Your task to perform on an android device: Open Android settings Image 0: 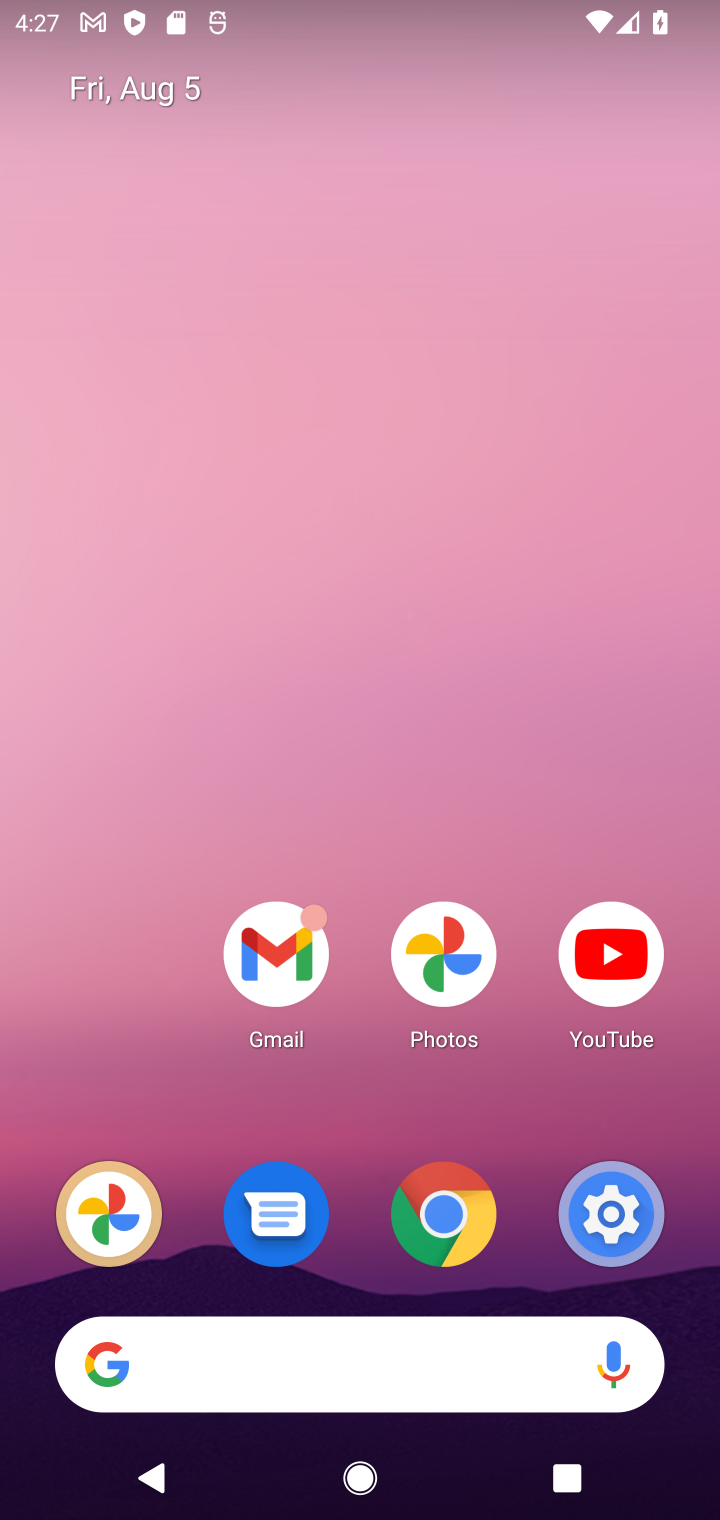
Step 0: drag from (176, 597) to (255, 0)
Your task to perform on an android device: Open Android settings Image 1: 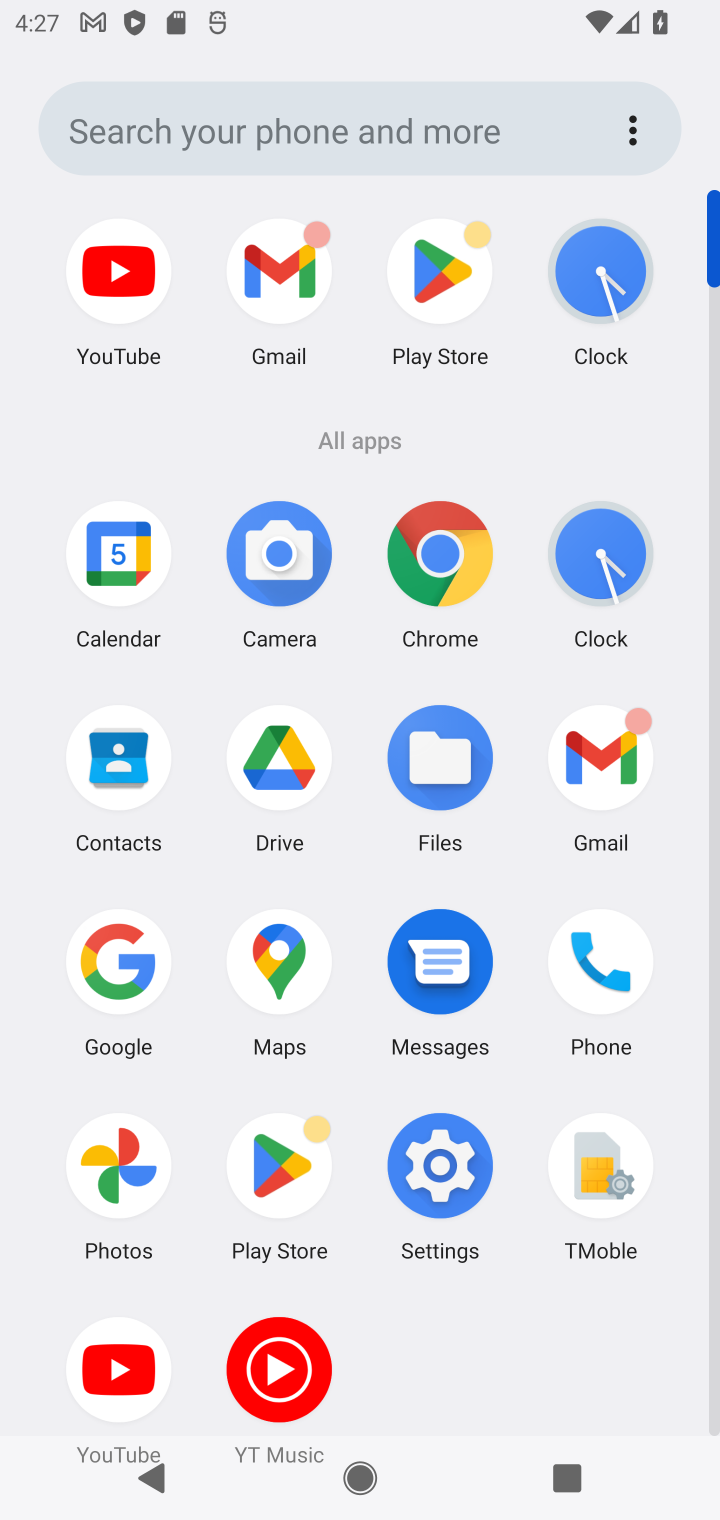
Step 1: click (443, 1166)
Your task to perform on an android device: Open Android settings Image 2: 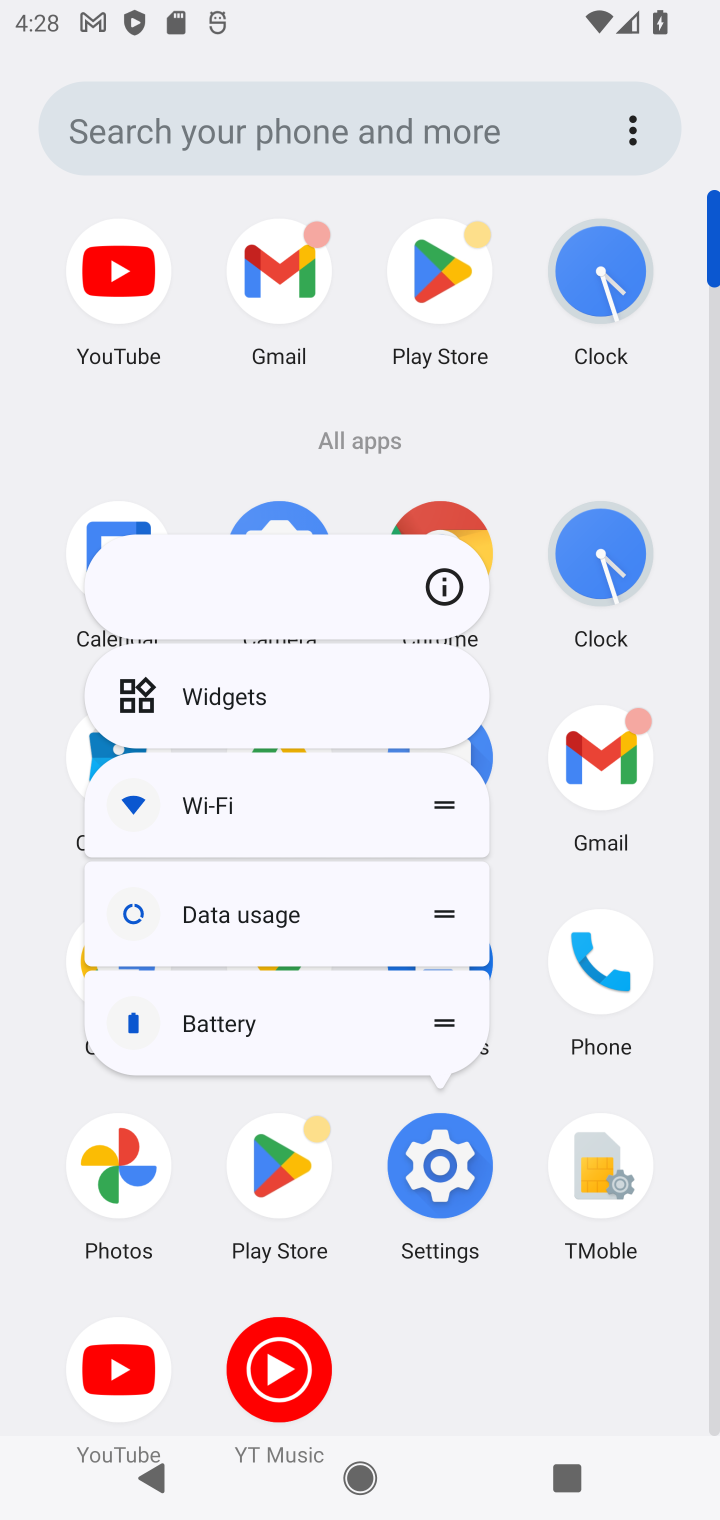
Step 2: click (443, 1166)
Your task to perform on an android device: Open Android settings Image 3: 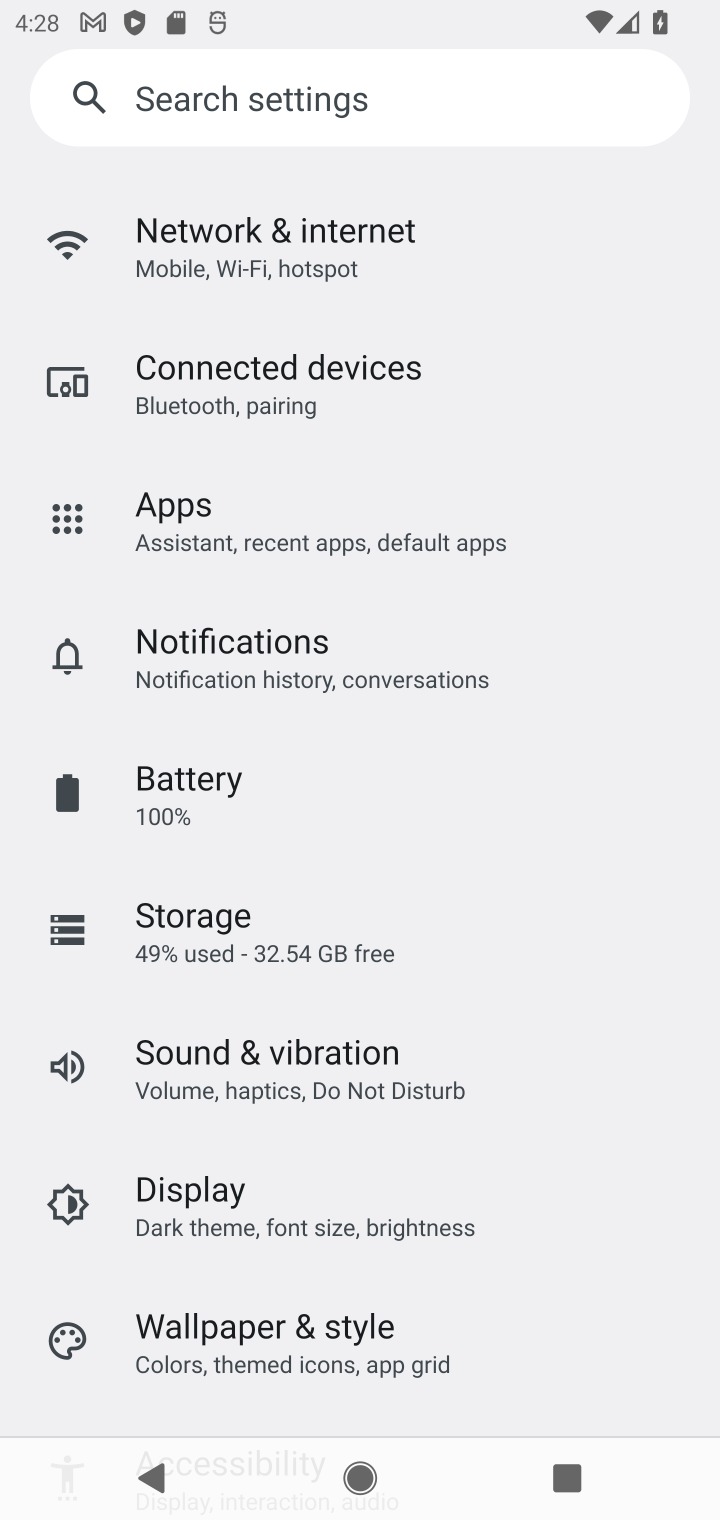
Step 3: drag from (457, 1254) to (590, 152)
Your task to perform on an android device: Open Android settings Image 4: 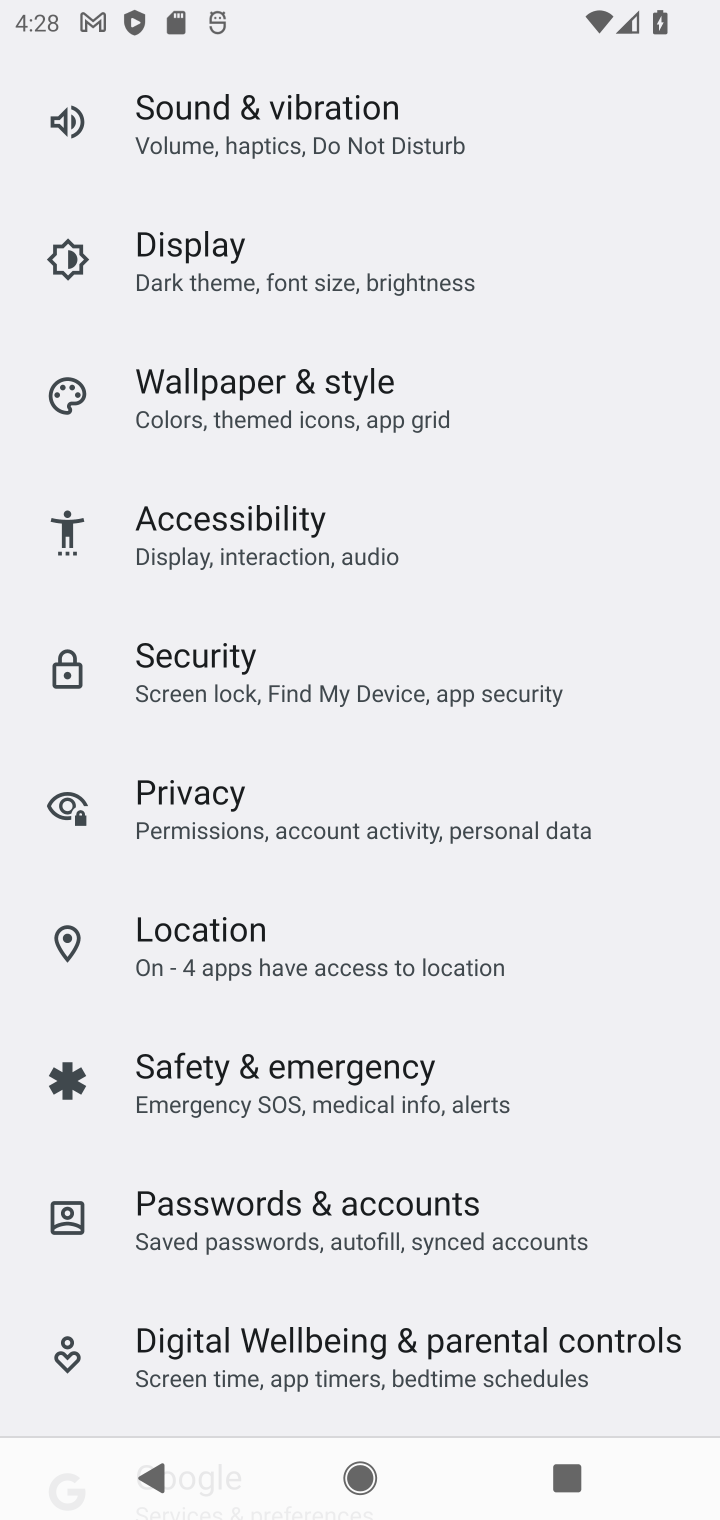
Step 4: drag from (517, 973) to (520, 4)
Your task to perform on an android device: Open Android settings Image 5: 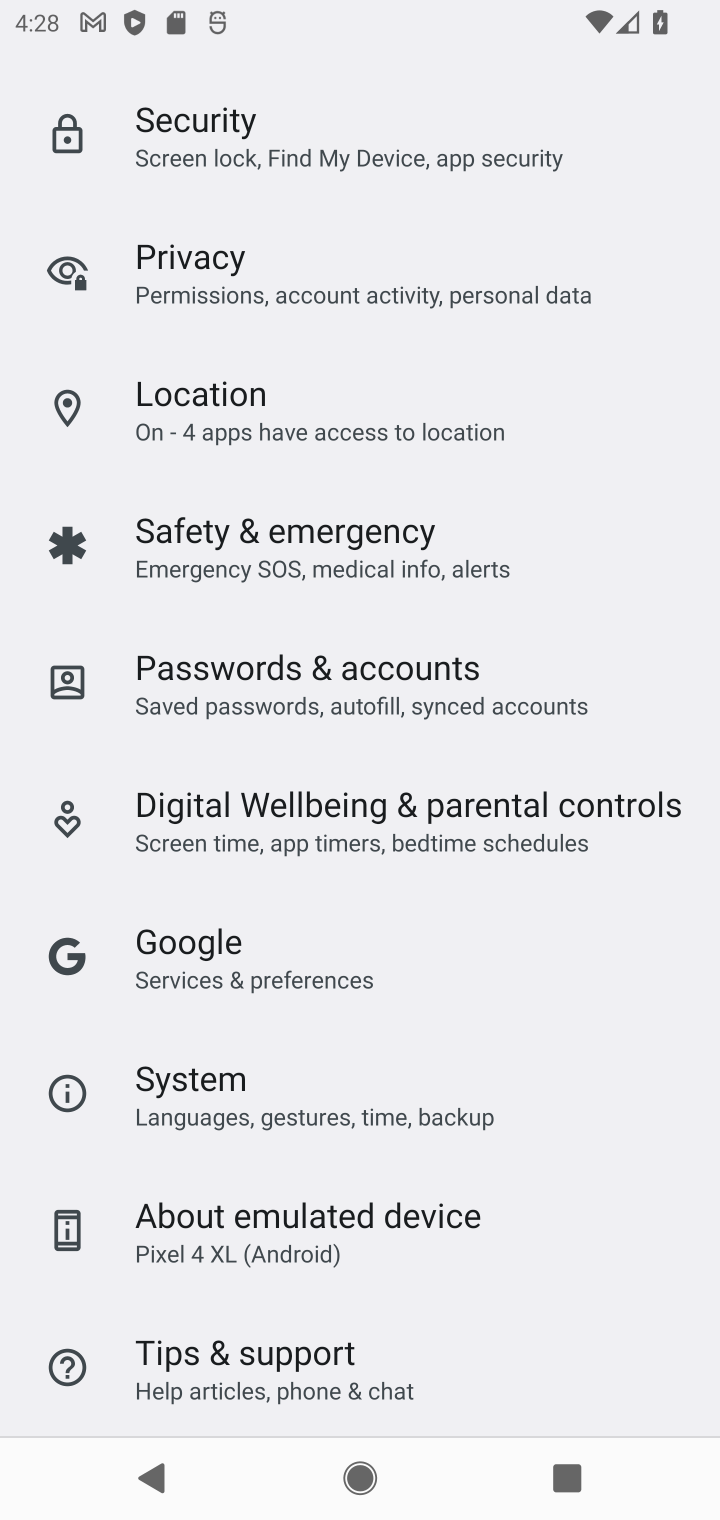
Step 5: click (310, 1232)
Your task to perform on an android device: Open Android settings Image 6: 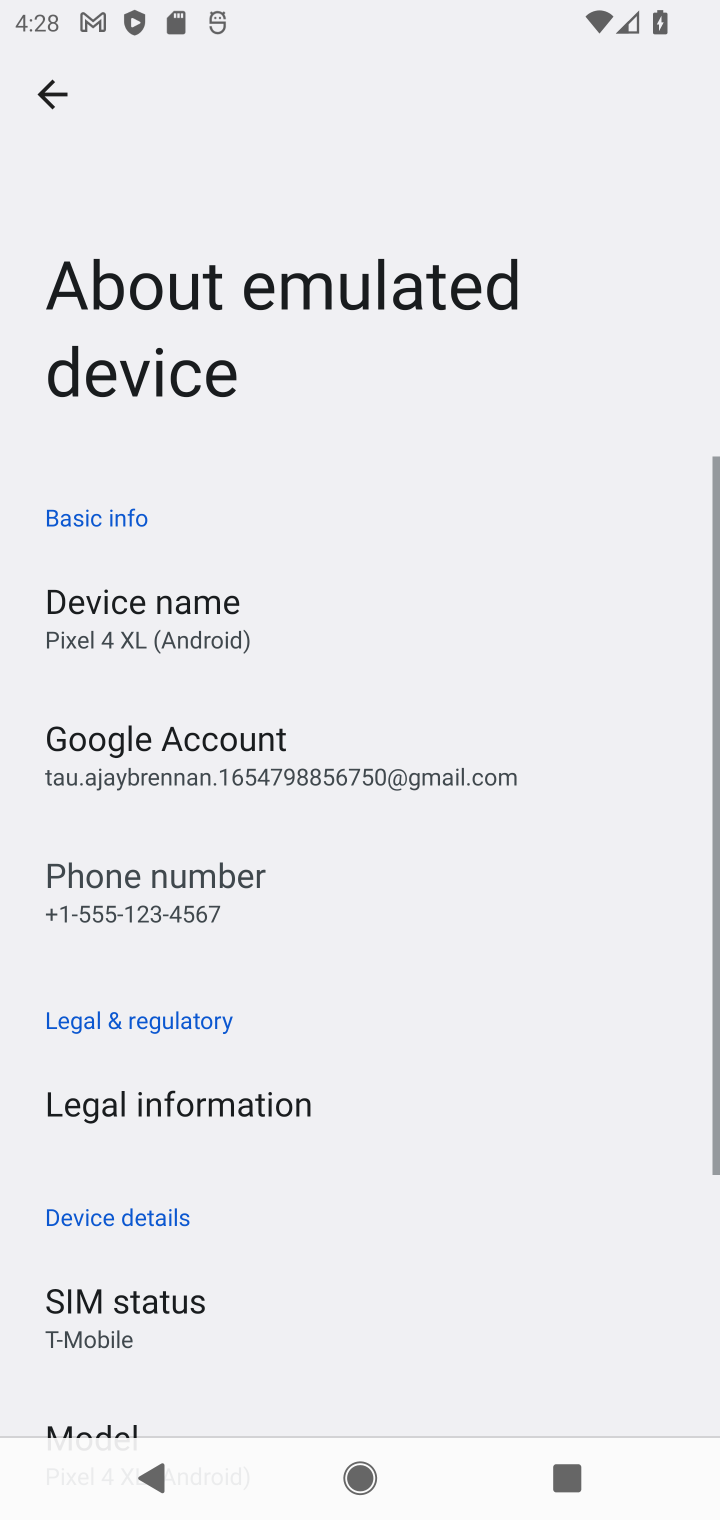
Step 6: task complete